Your task to perform on an android device: Where can I buy a nice beach umbrella? Image 0: 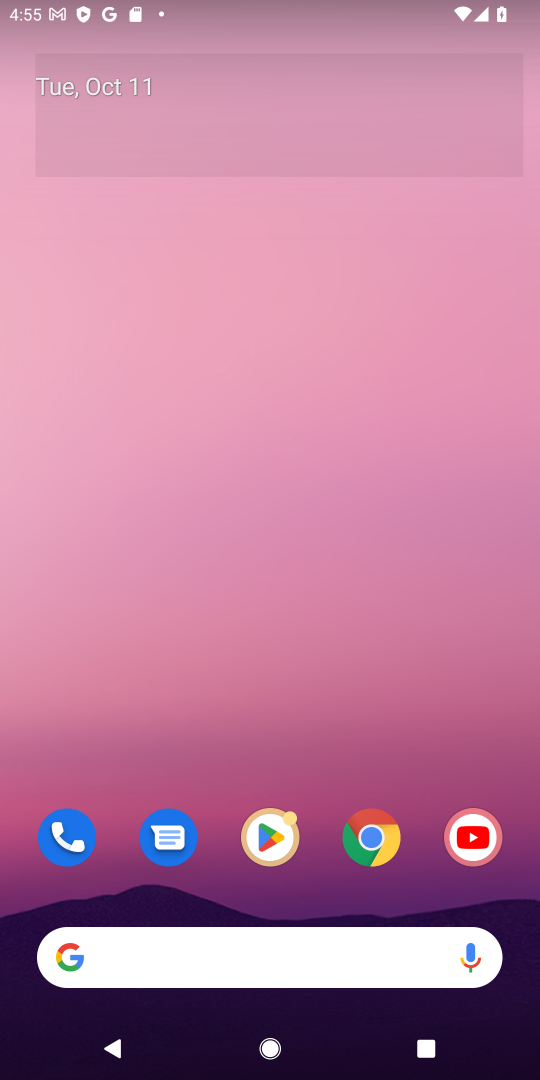
Step 0: drag from (217, 730) to (252, 4)
Your task to perform on an android device: Where can I buy a nice beach umbrella? Image 1: 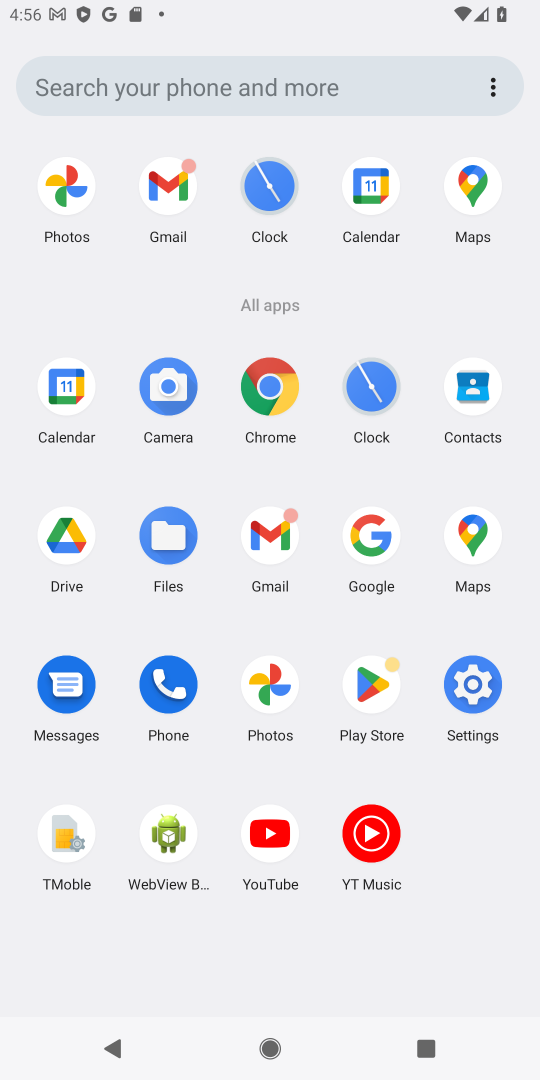
Step 1: click (268, 396)
Your task to perform on an android device: Where can I buy a nice beach umbrella? Image 2: 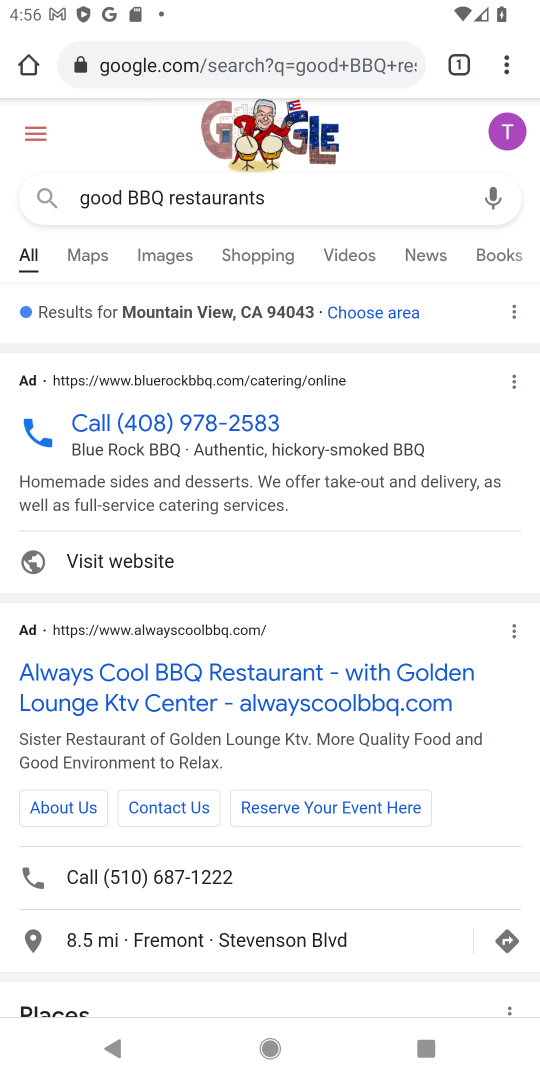
Step 2: click (275, 183)
Your task to perform on an android device: Where can I buy a nice beach umbrella? Image 3: 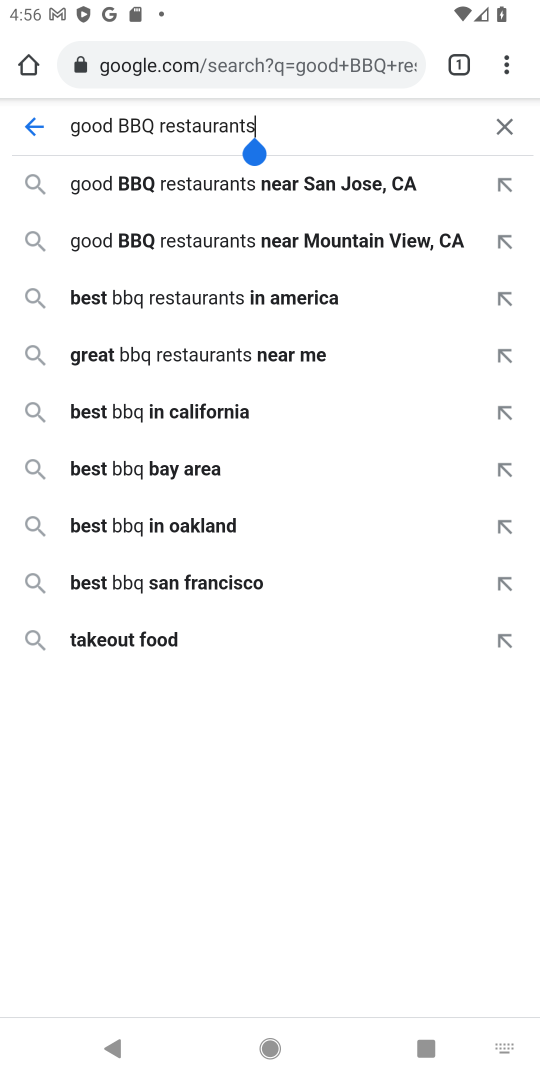
Step 3: click (278, 182)
Your task to perform on an android device: Where can I buy a nice beach umbrella? Image 4: 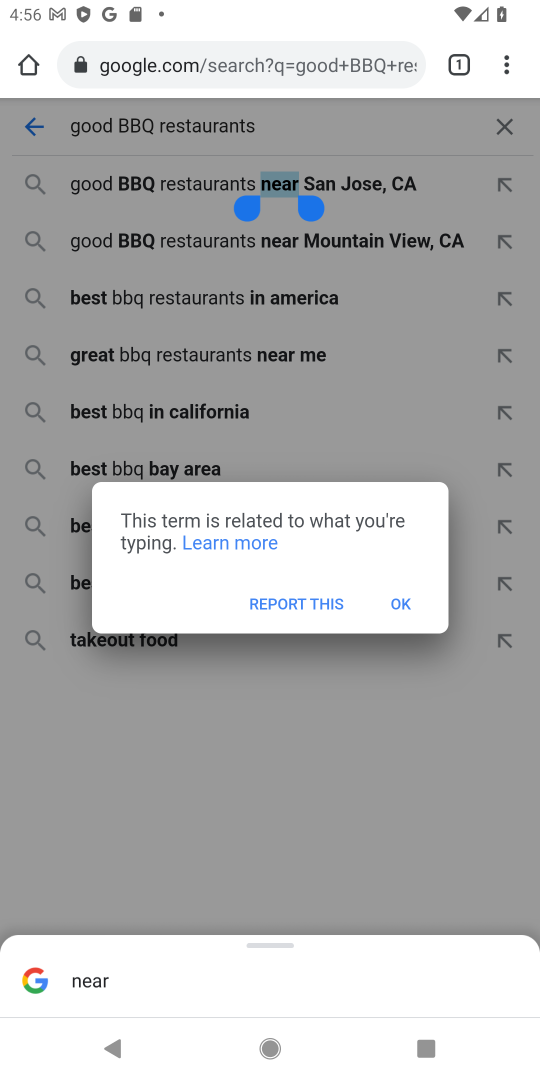
Step 4: click (314, 80)
Your task to perform on an android device: Where can I buy a nice beach umbrella? Image 5: 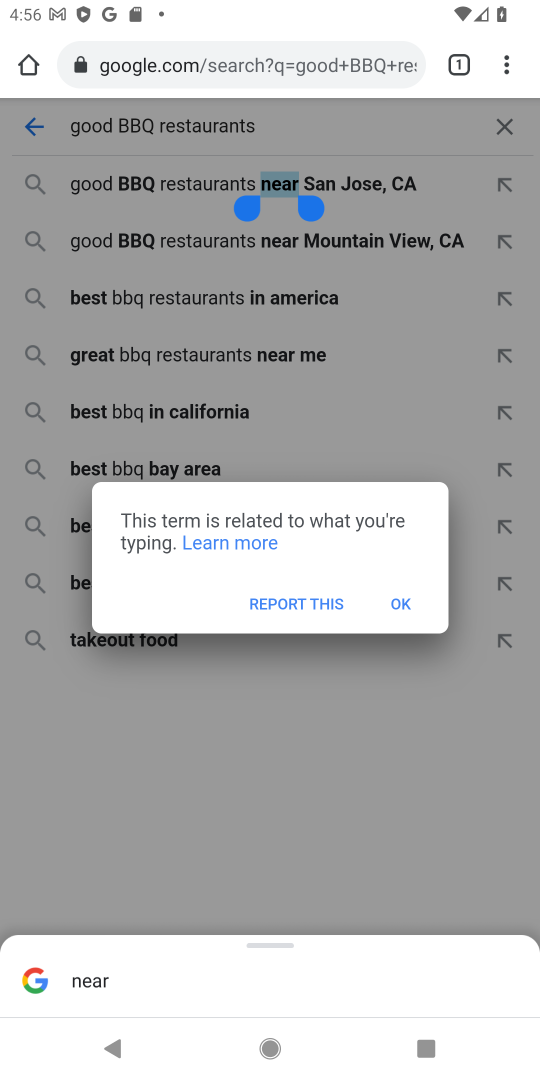
Step 5: click (315, 78)
Your task to perform on an android device: Where can I buy a nice beach umbrella? Image 6: 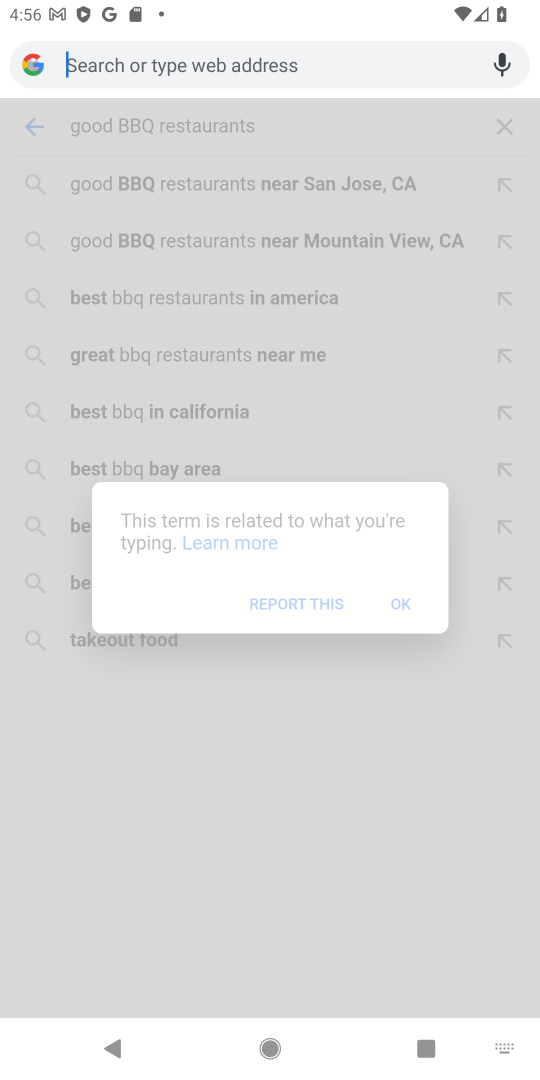
Step 6: click (314, 68)
Your task to perform on an android device: Where can I buy a nice beach umbrella? Image 7: 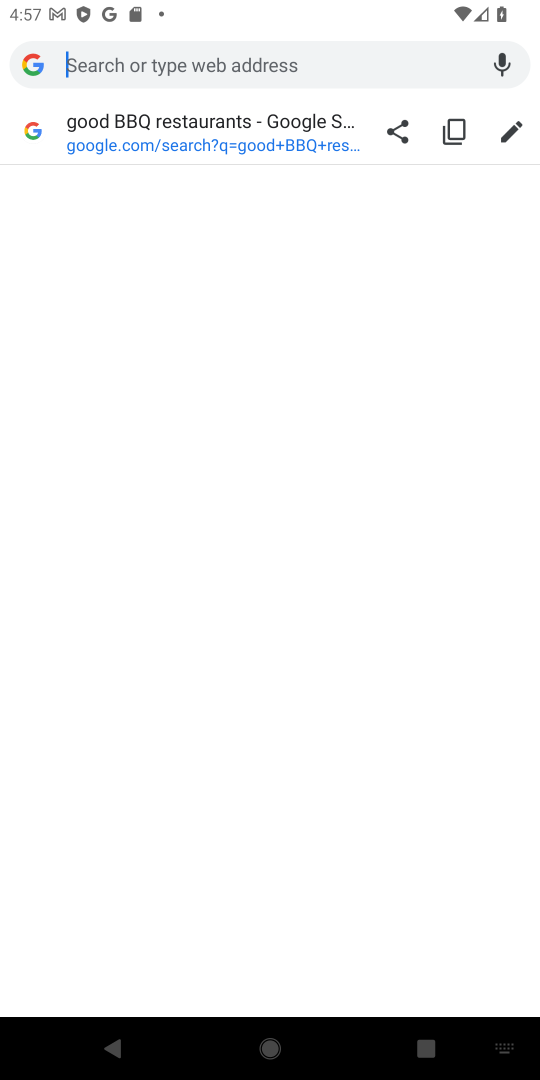
Step 7: type "Where can I buy a nice beach umbrella?"
Your task to perform on an android device: Where can I buy a nice beach umbrella? Image 8: 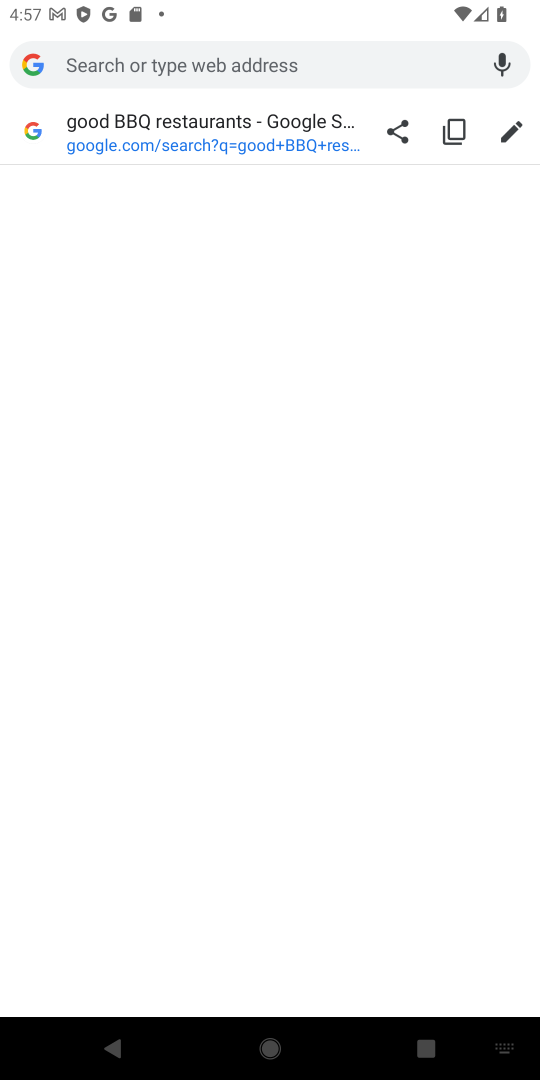
Step 8: click (202, 65)
Your task to perform on an android device: Where can I buy a nice beach umbrella? Image 9: 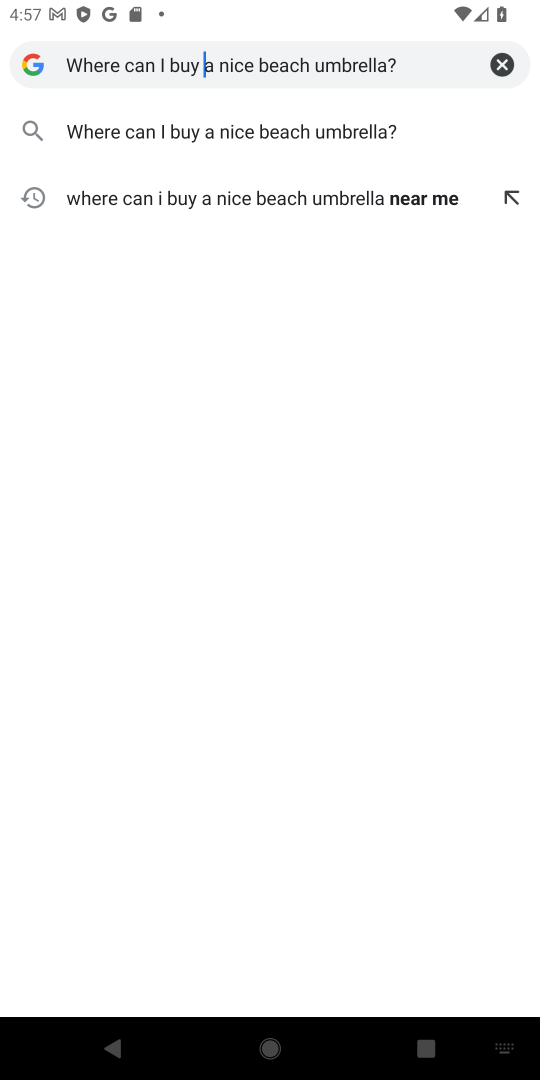
Step 9: press enter
Your task to perform on an android device: Where can I buy a nice beach umbrella? Image 10: 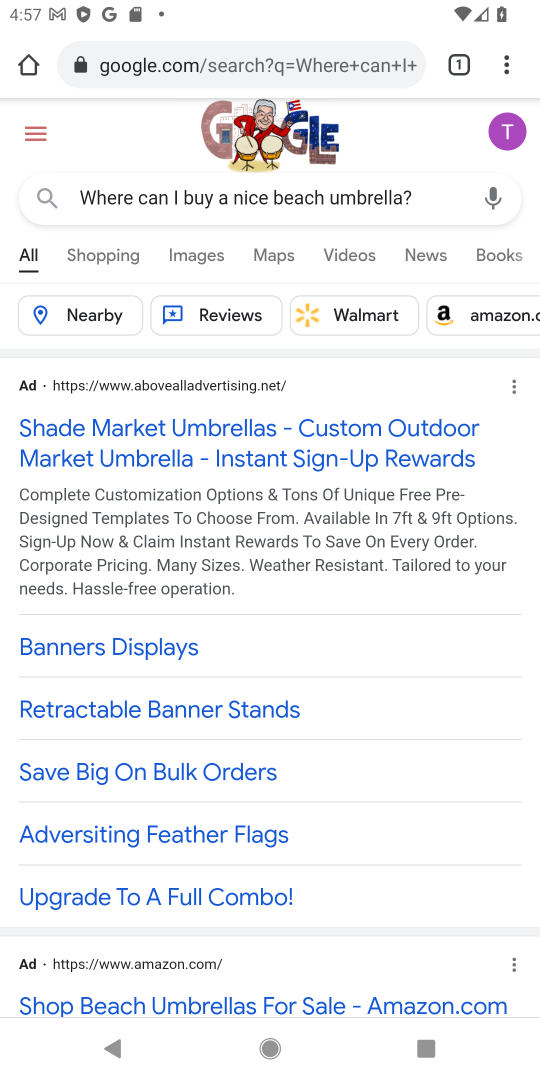
Step 10: click (229, 441)
Your task to perform on an android device: Where can I buy a nice beach umbrella? Image 11: 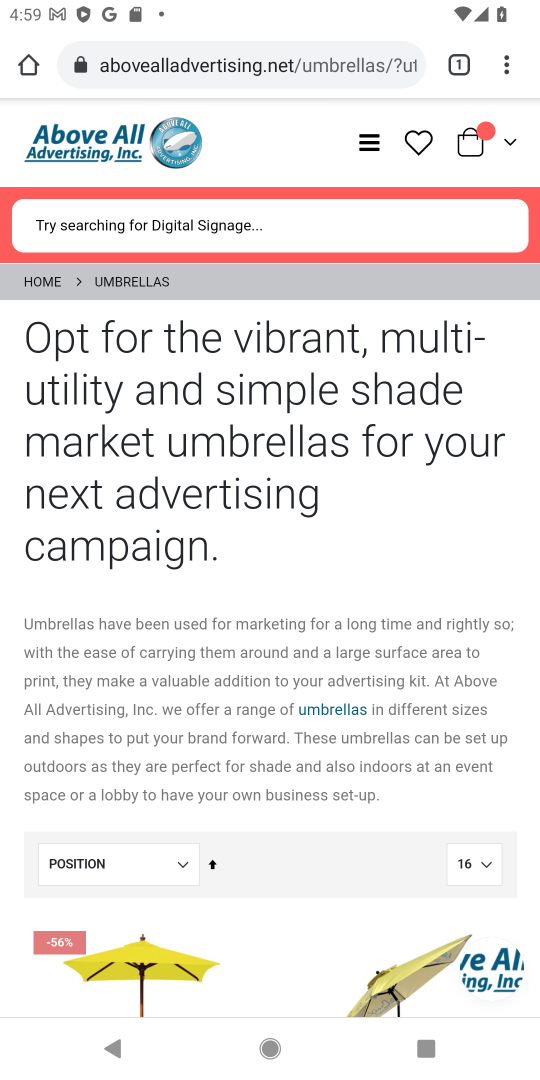
Step 11: task complete